Your task to perform on an android device: turn on showing notifications on the lock screen Image 0: 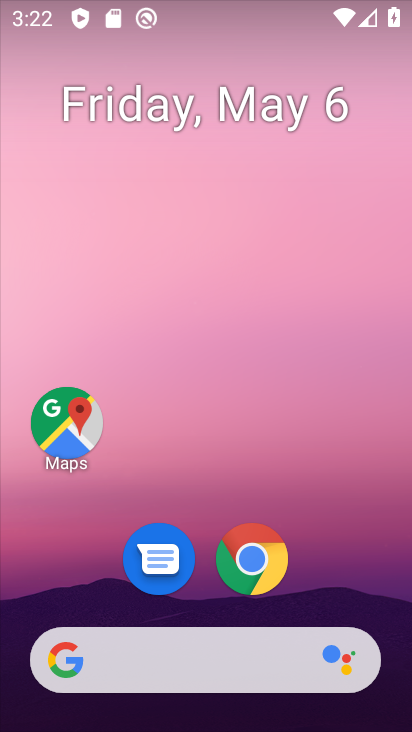
Step 0: drag from (226, 620) to (191, 34)
Your task to perform on an android device: turn on showing notifications on the lock screen Image 1: 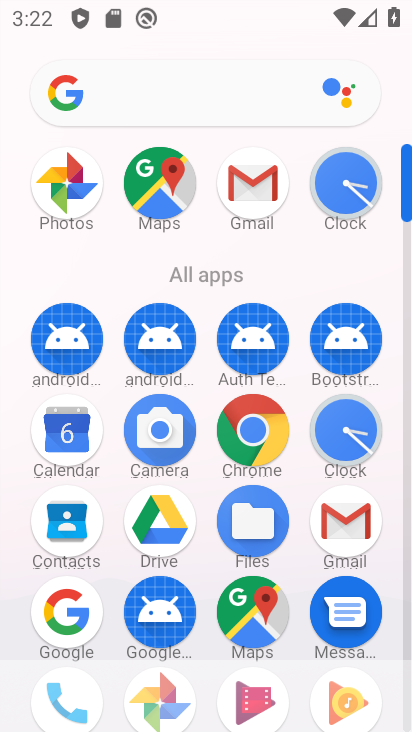
Step 1: drag from (201, 566) to (181, 181)
Your task to perform on an android device: turn on showing notifications on the lock screen Image 2: 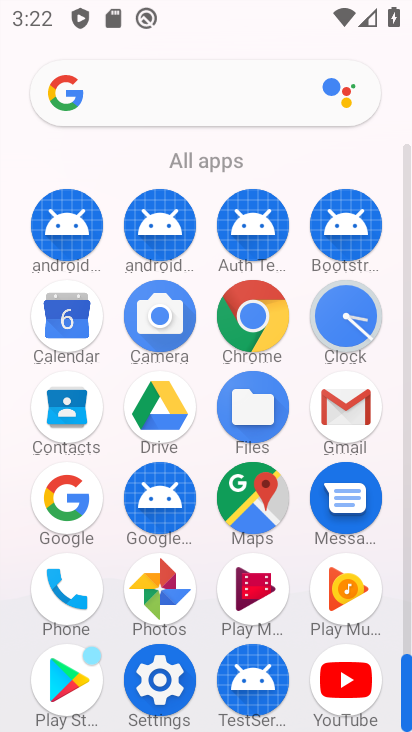
Step 2: click (145, 671)
Your task to perform on an android device: turn on showing notifications on the lock screen Image 3: 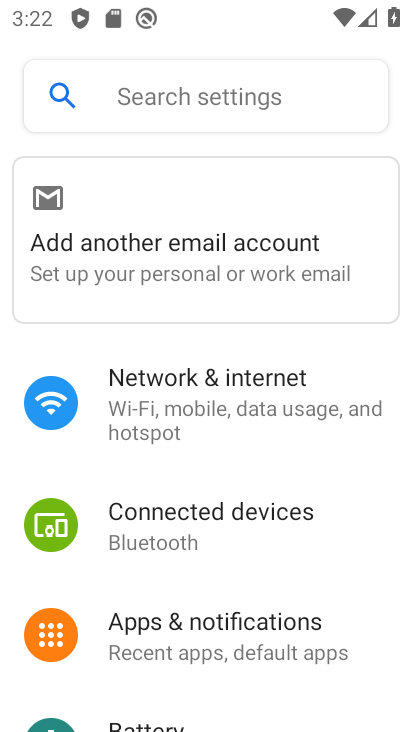
Step 3: click (234, 631)
Your task to perform on an android device: turn on showing notifications on the lock screen Image 4: 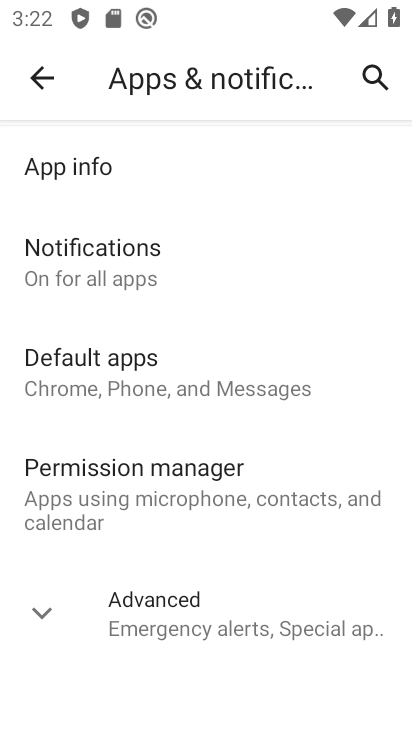
Step 4: click (134, 262)
Your task to perform on an android device: turn on showing notifications on the lock screen Image 5: 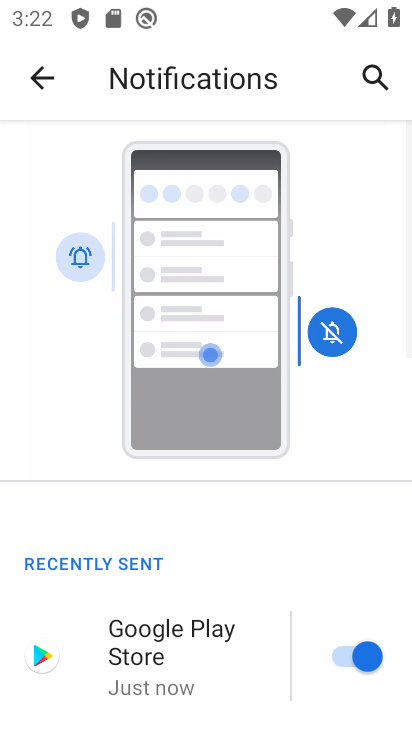
Step 5: drag from (220, 639) to (203, 70)
Your task to perform on an android device: turn on showing notifications on the lock screen Image 6: 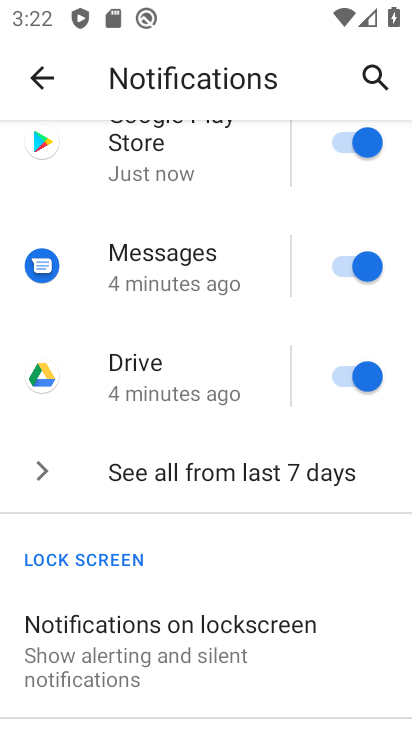
Step 6: click (219, 658)
Your task to perform on an android device: turn on showing notifications on the lock screen Image 7: 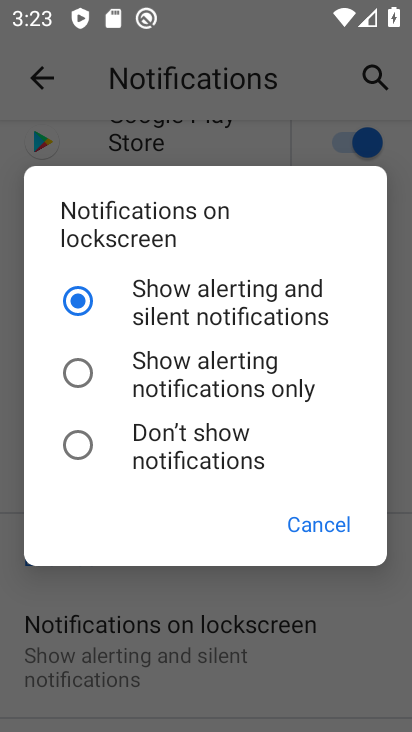
Step 7: click (135, 302)
Your task to perform on an android device: turn on showing notifications on the lock screen Image 8: 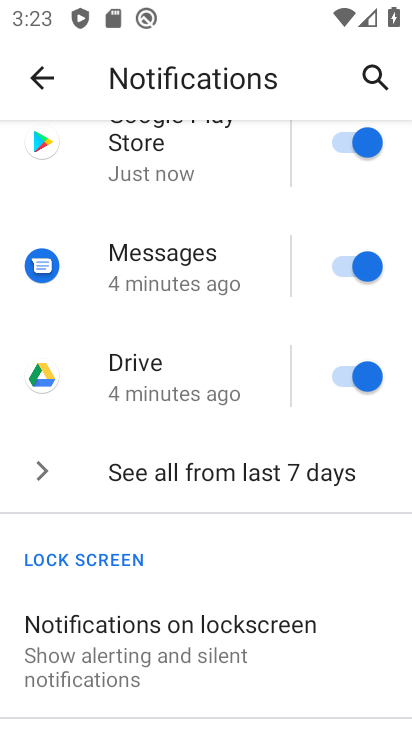
Step 8: task complete